Your task to perform on an android device: What's the news in Thailand? Image 0: 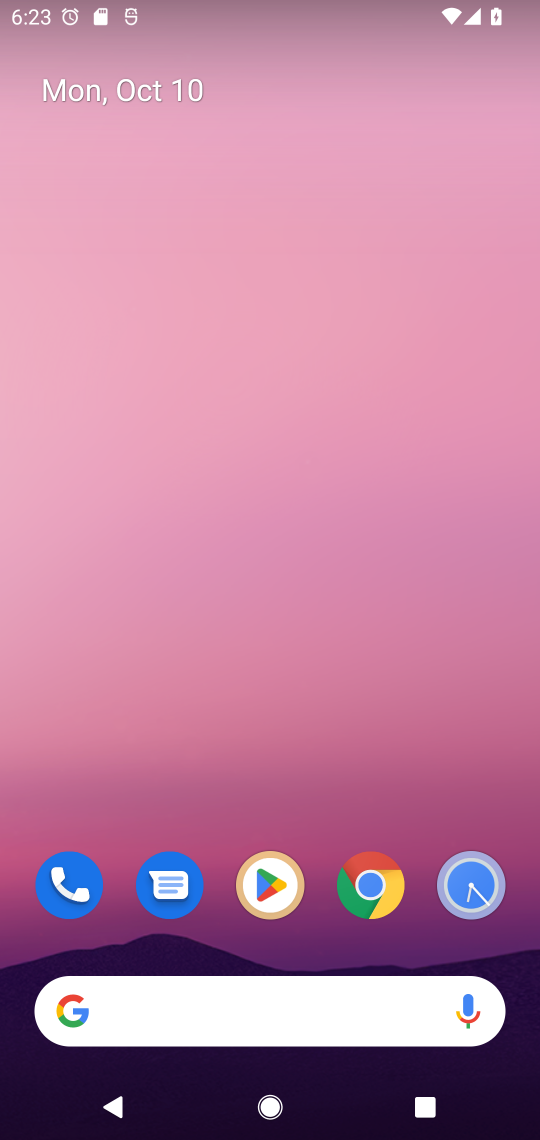
Step 0: click (386, 875)
Your task to perform on an android device: What's the news in Thailand? Image 1: 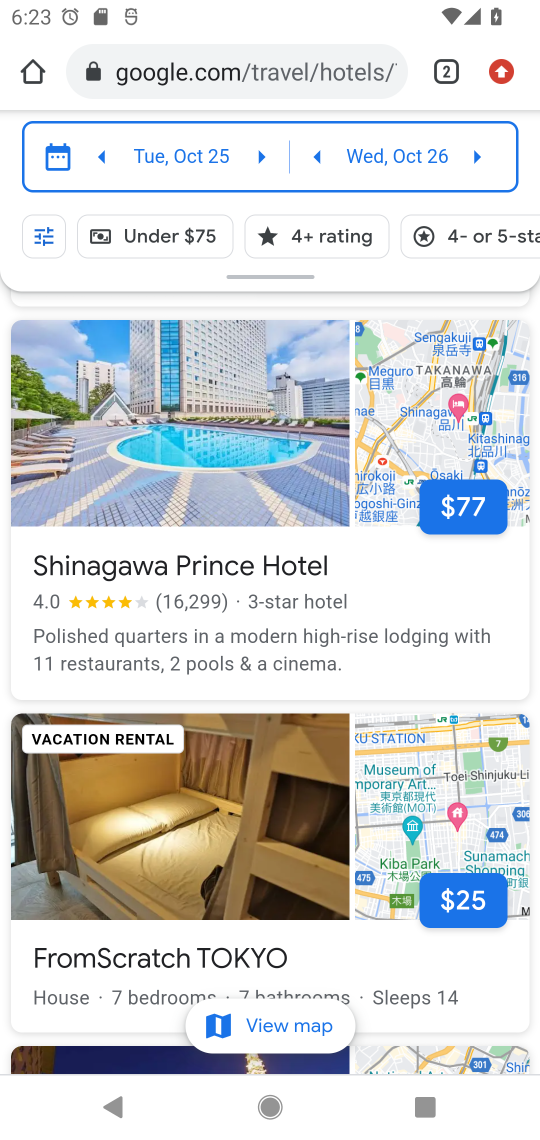
Step 1: click (235, 73)
Your task to perform on an android device: What's the news in Thailand? Image 2: 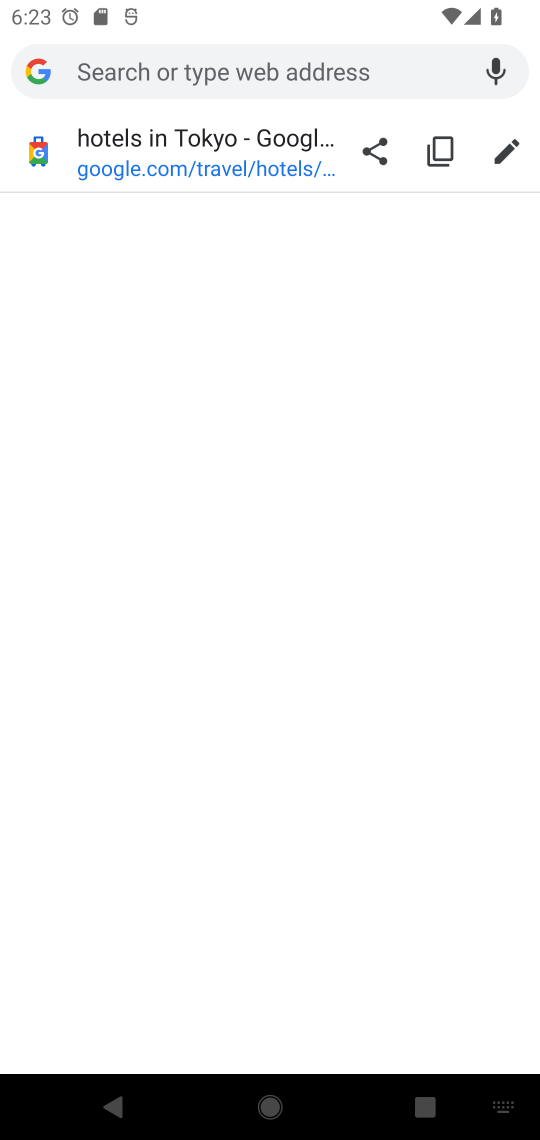
Step 2: type "Thailand"
Your task to perform on an android device: What's the news in Thailand? Image 3: 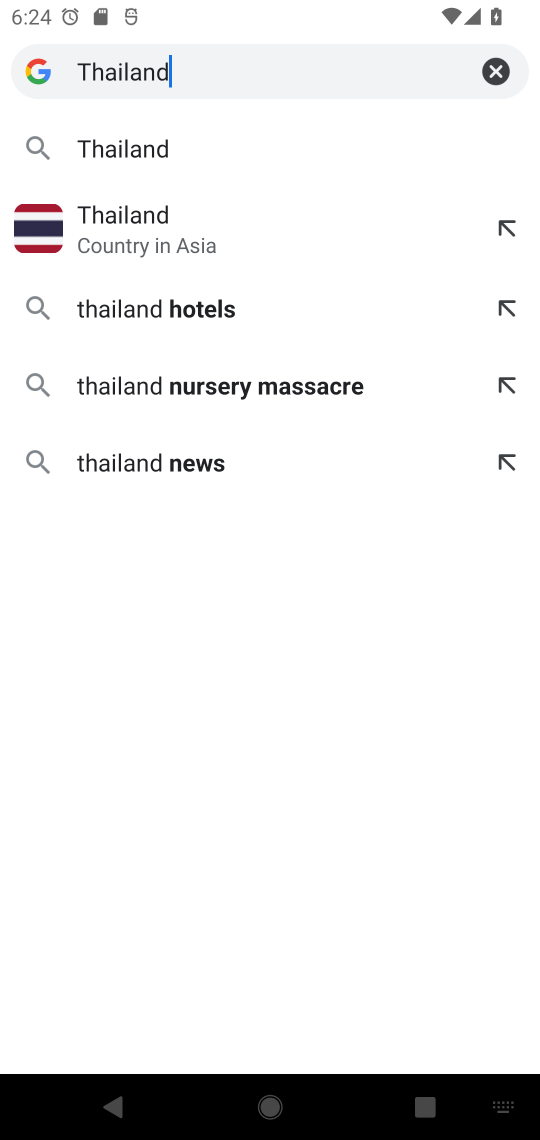
Step 3: click (139, 154)
Your task to perform on an android device: What's the news in Thailand? Image 4: 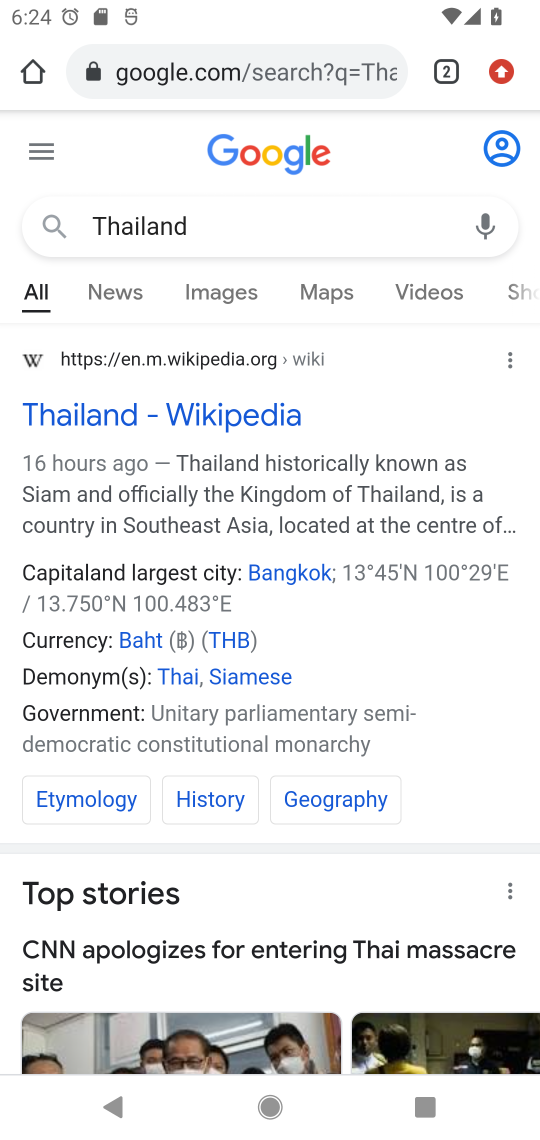
Step 4: click (122, 287)
Your task to perform on an android device: What's the news in Thailand? Image 5: 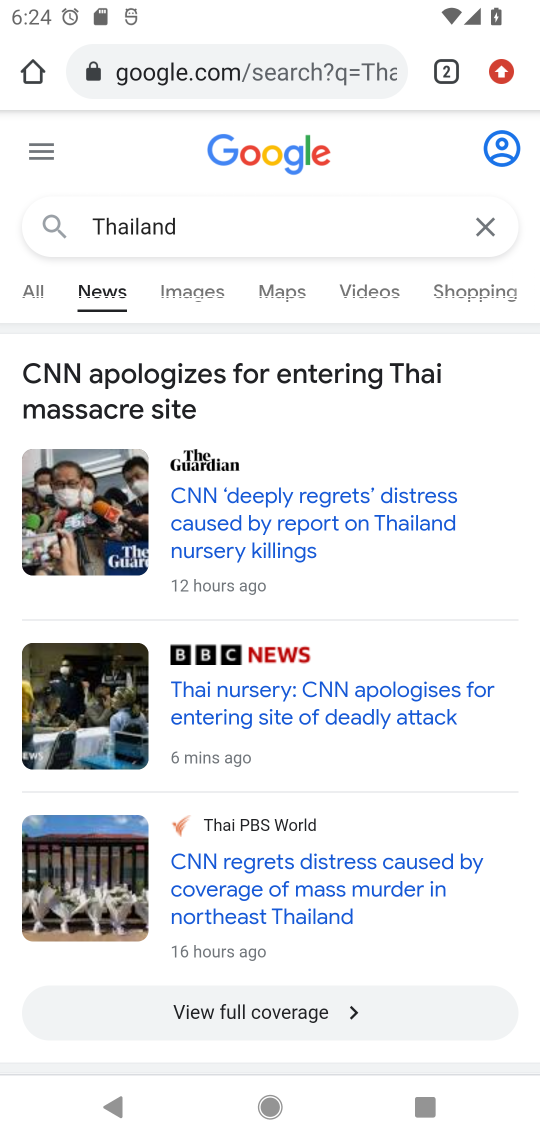
Step 5: drag from (418, 947) to (345, 413)
Your task to perform on an android device: What's the news in Thailand? Image 6: 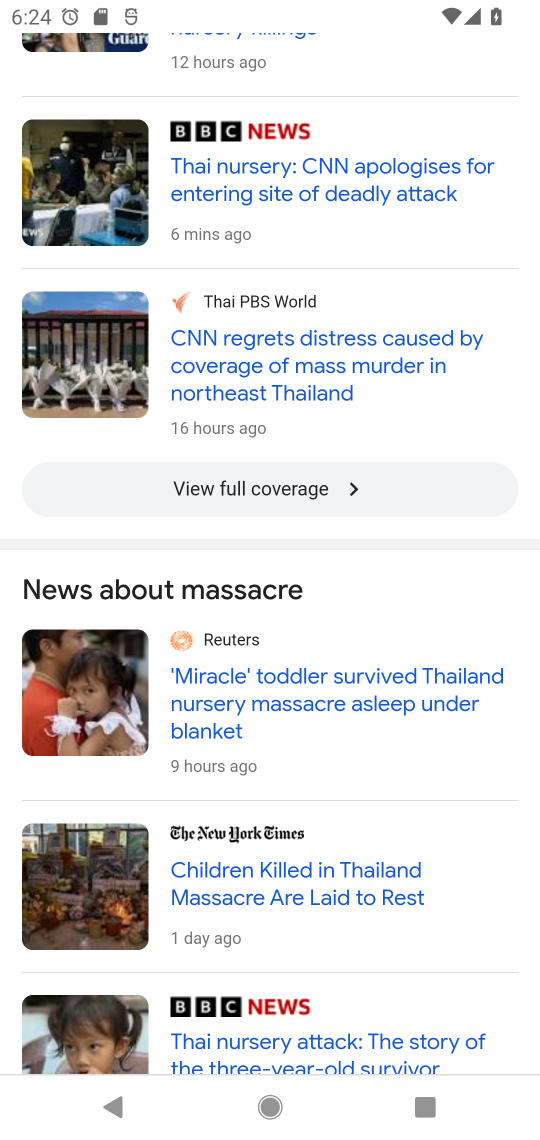
Step 6: drag from (353, 799) to (295, 334)
Your task to perform on an android device: What's the news in Thailand? Image 7: 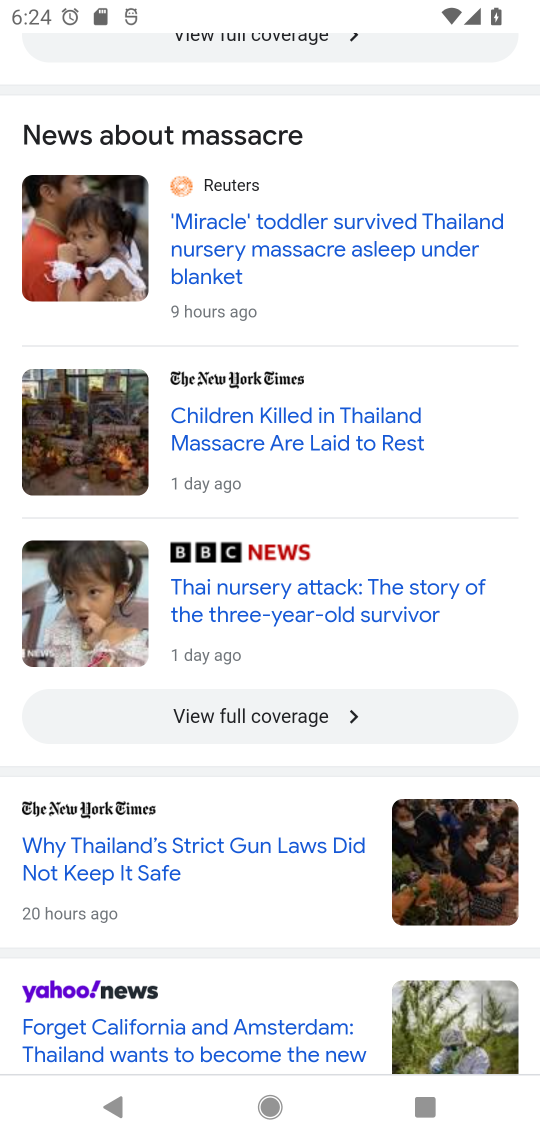
Step 7: drag from (270, 850) to (159, 352)
Your task to perform on an android device: What's the news in Thailand? Image 8: 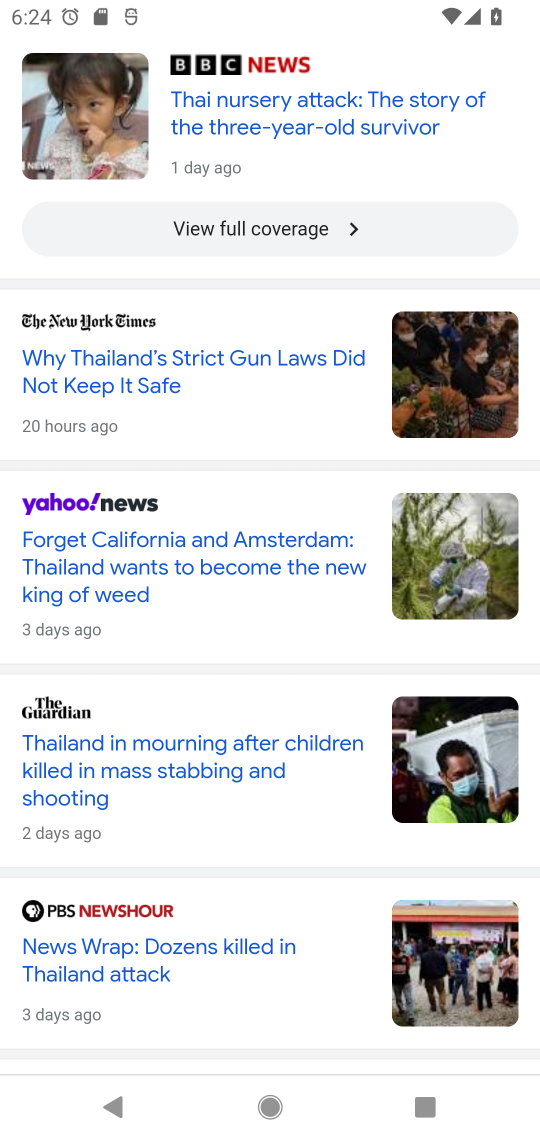
Step 8: click (210, 474)
Your task to perform on an android device: What's the news in Thailand? Image 9: 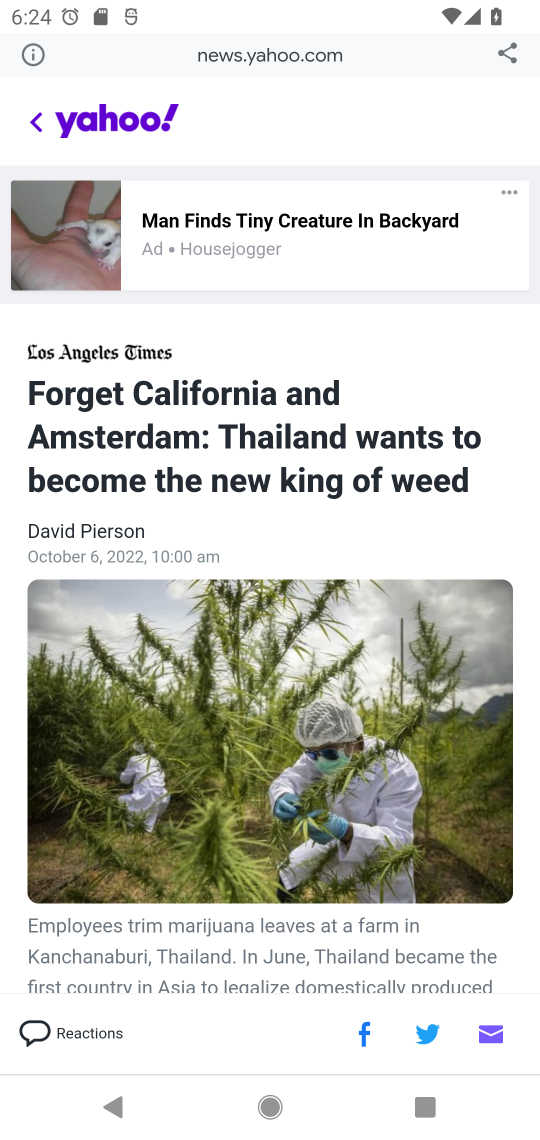
Step 9: task complete